Your task to perform on an android device: empty trash in the gmail app Image 0: 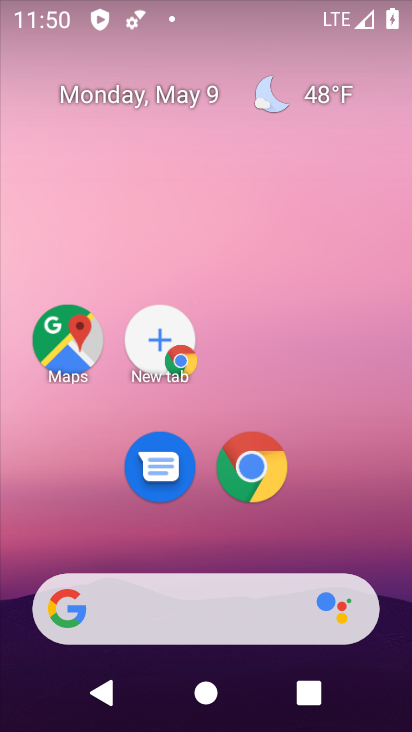
Step 0: drag from (359, 583) to (141, 26)
Your task to perform on an android device: empty trash in the gmail app Image 1: 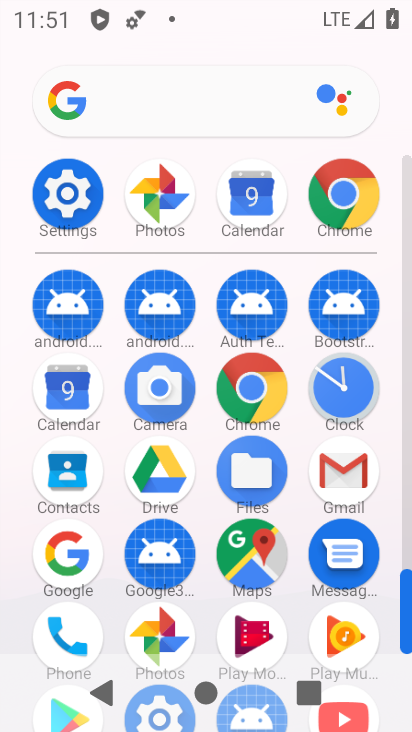
Step 1: click (325, 480)
Your task to perform on an android device: empty trash in the gmail app Image 2: 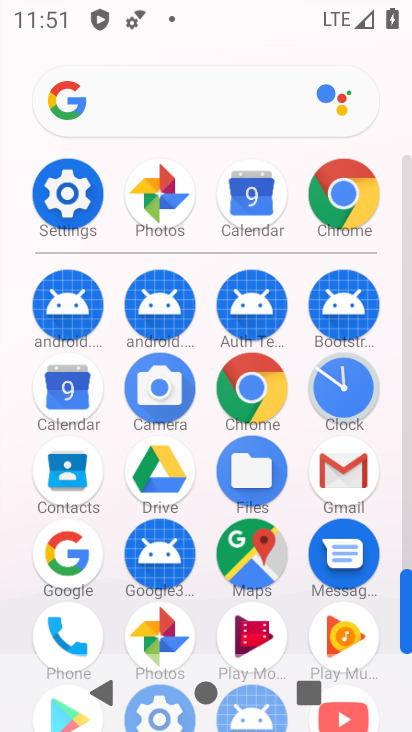
Step 2: click (344, 466)
Your task to perform on an android device: empty trash in the gmail app Image 3: 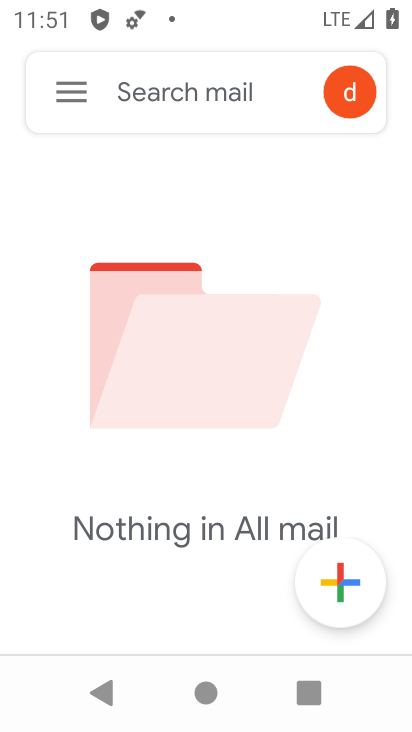
Step 3: click (345, 466)
Your task to perform on an android device: empty trash in the gmail app Image 4: 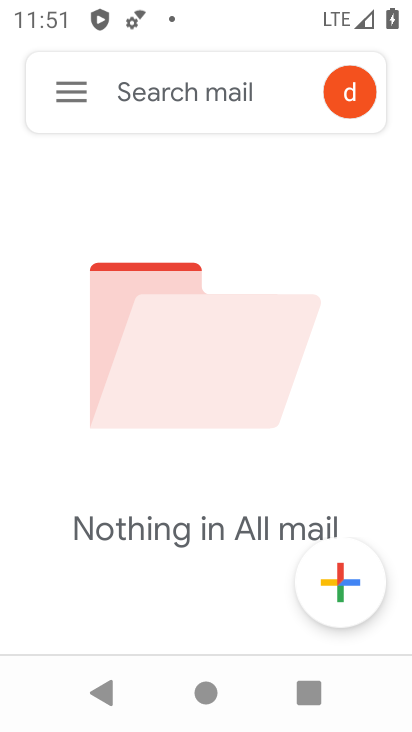
Step 4: click (64, 86)
Your task to perform on an android device: empty trash in the gmail app Image 5: 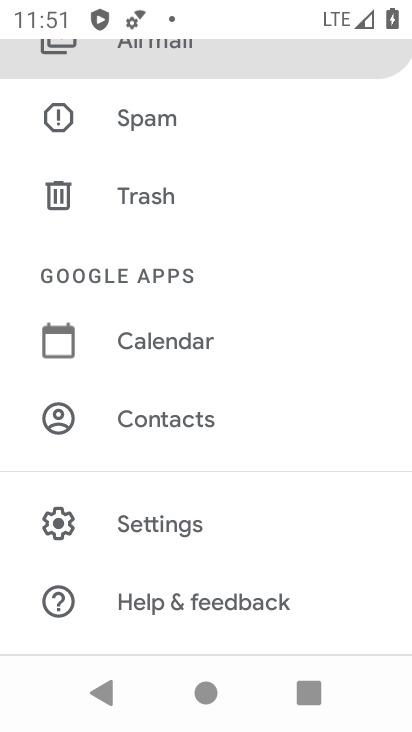
Step 5: click (160, 196)
Your task to perform on an android device: empty trash in the gmail app Image 6: 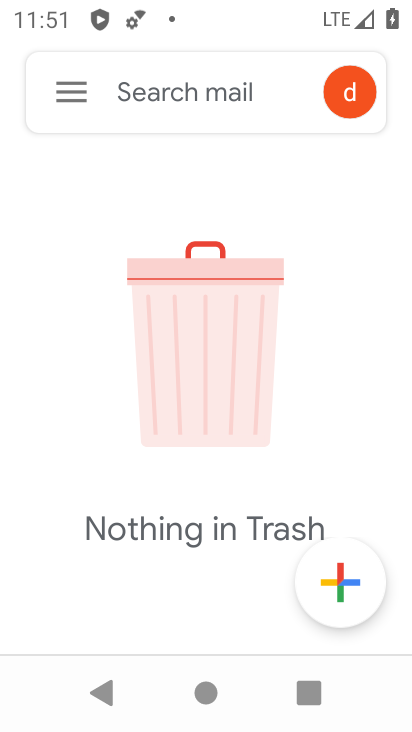
Step 6: click (158, 206)
Your task to perform on an android device: empty trash in the gmail app Image 7: 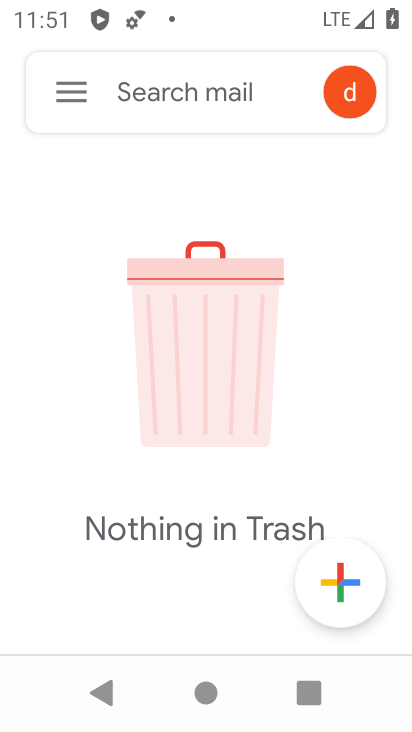
Step 7: click (139, 205)
Your task to perform on an android device: empty trash in the gmail app Image 8: 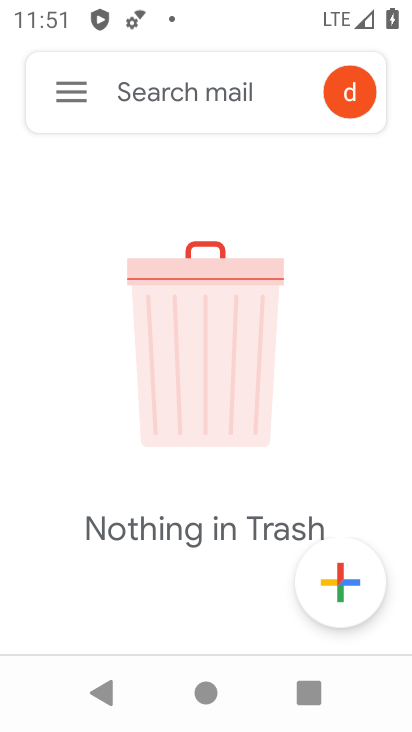
Step 8: click (142, 200)
Your task to perform on an android device: empty trash in the gmail app Image 9: 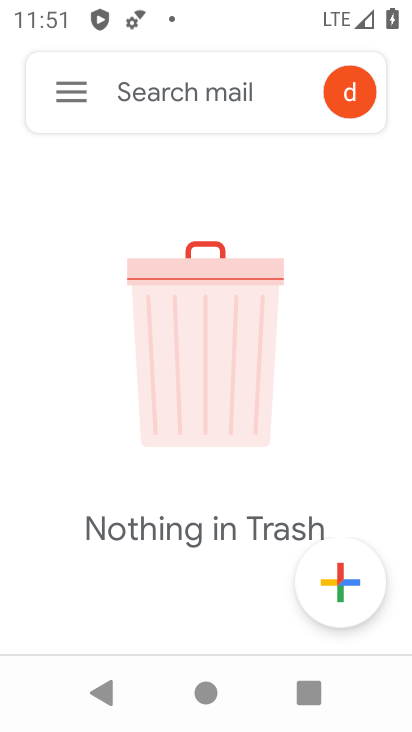
Step 9: task complete